Your task to perform on an android device: Go to calendar. Show me events next week Image 0: 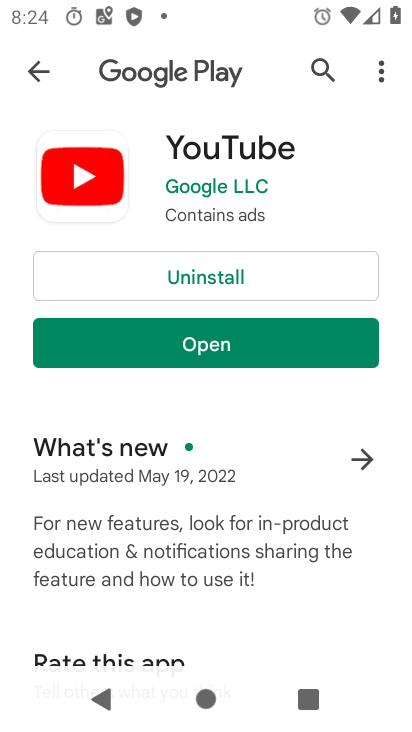
Step 0: press home button
Your task to perform on an android device: Go to calendar. Show me events next week Image 1: 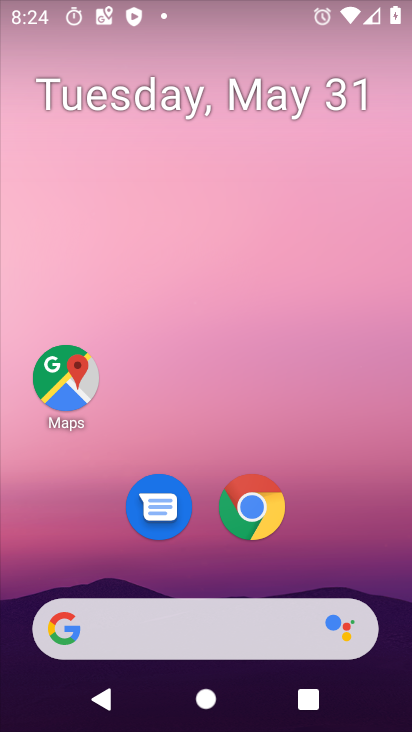
Step 1: drag from (323, 575) to (377, 8)
Your task to perform on an android device: Go to calendar. Show me events next week Image 2: 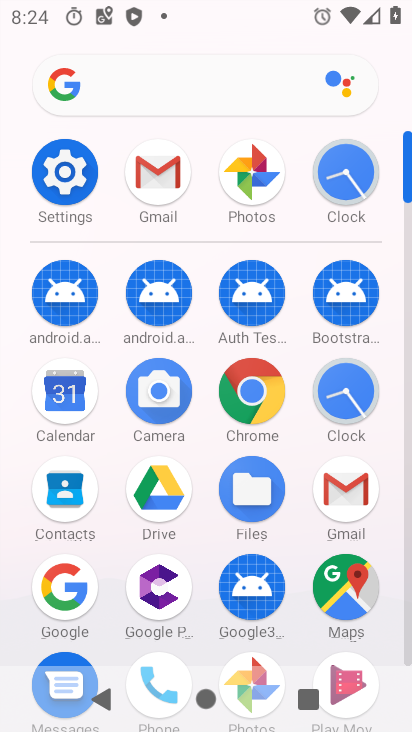
Step 2: click (56, 396)
Your task to perform on an android device: Go to calendar. Show me events next week Image 3: 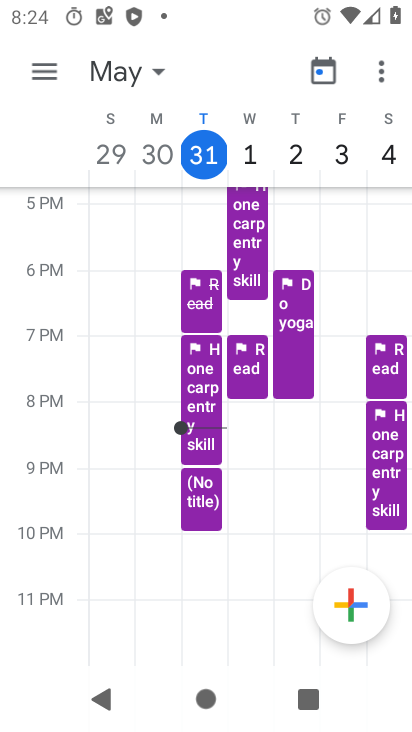
Step 3: task complete